Your task to perform on an android device: toggle pop-ups in chrome Image 0: 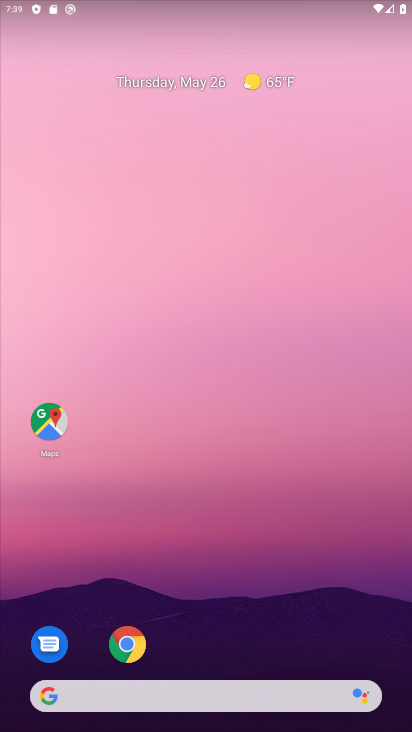
Step 0: drag from (169, 669) to (190, 261)
Your task to perform on an android device: toggle pop-ups in chrome Image 1: 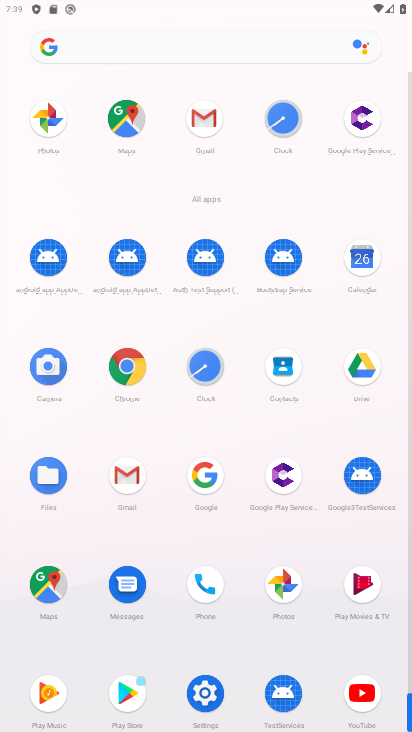
Step 1: click (125, 359)
Your task to perform on an android device: toggle pop-ups in chrome Image 2: 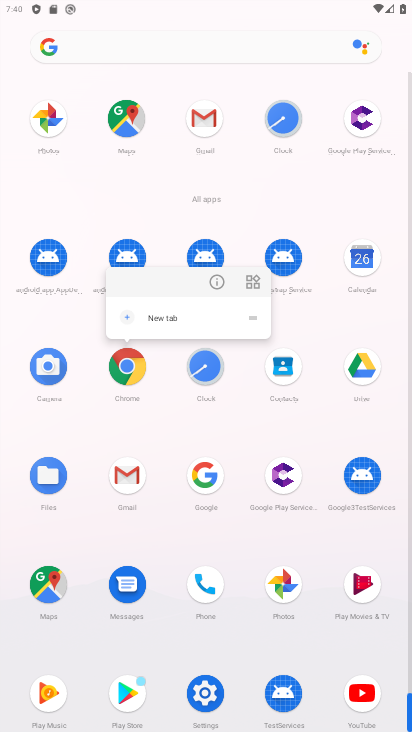
Step 2: click (220, 280)
Your task to perform on an android device: toggle pop-ups in chrome Image 3: 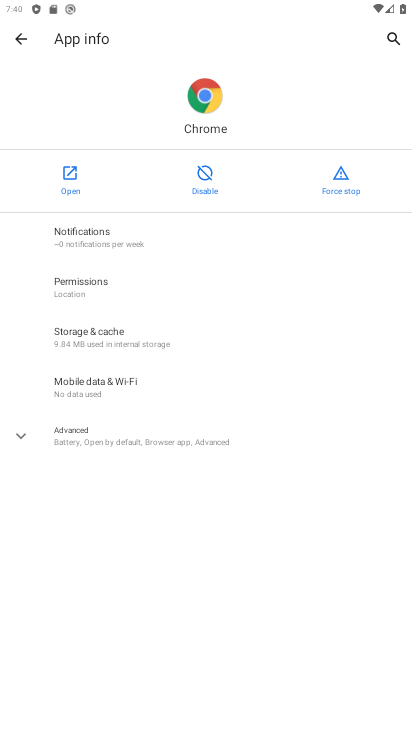
Step 3: click (74, 174)
Your task to perform on an android device: toggle pop-ups in chrome Image 4: 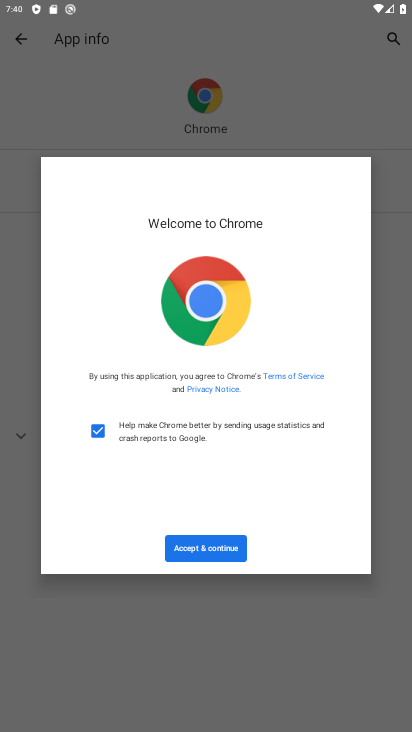
Step 4: click (207, 544)
Your task to perform on an android device: toggle pop-ups in chrome Image 5: 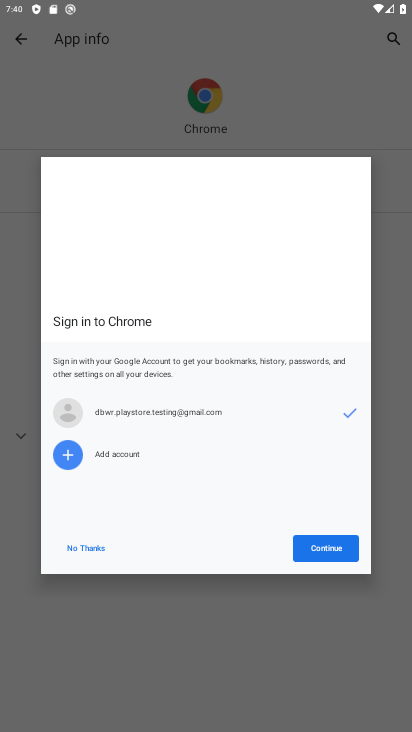
Step 5: click (320, 558)
Your task to perform on an android device: toggle pop-ups in chrome Image 6: 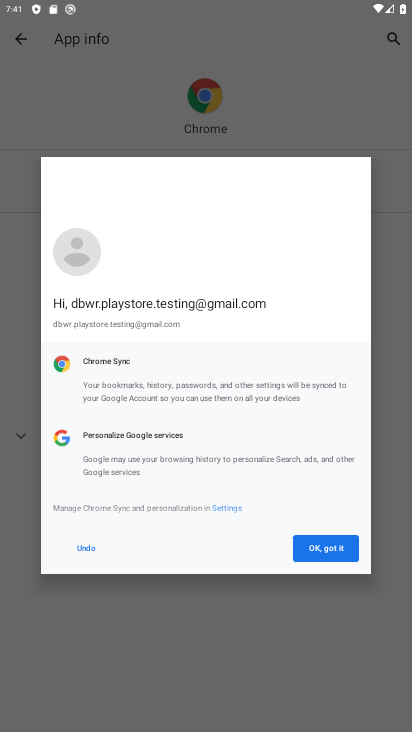
Step 6: click (310, 550)
Your task to perform on an android device: toggle pop-ups in chrome Image 7: 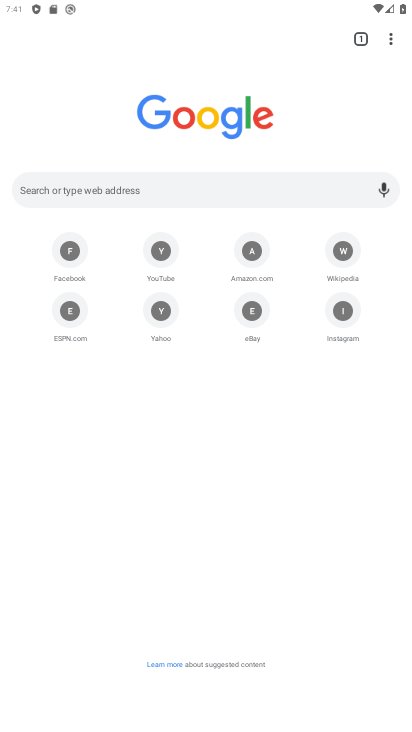
Step 7: drag from (189, 663) to (287, 239)
Your task to perform on an android device: toggle pop-ups in chrome Image 8: 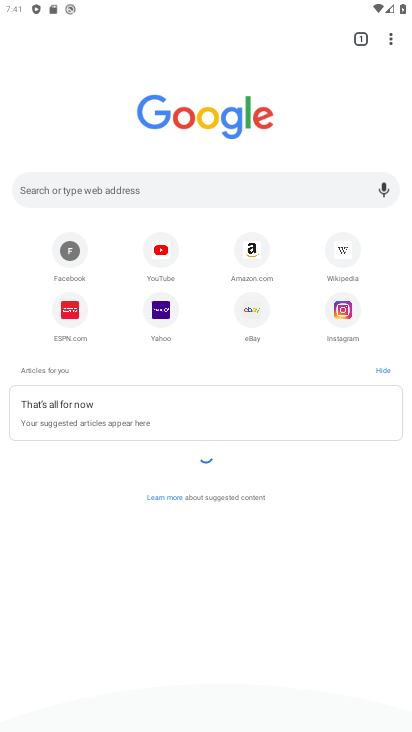
Step 8: drag from (298, 223) to (366, 716)
Your task to perform on an android device: toggle pop-ups in chrome Image 9: 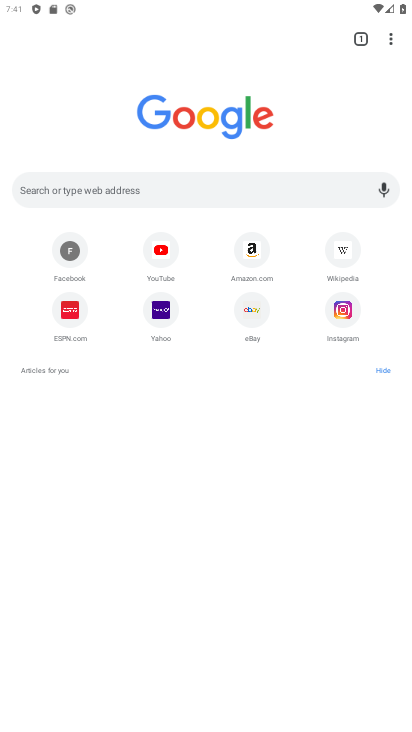
Step 9: click (389, 38)
Your task to perform on an android device: toggle pop-ups in chrome Image 10: 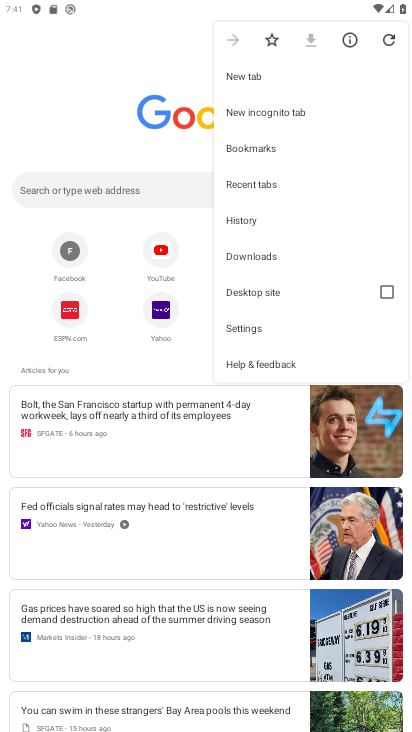
Step 10: drag from (258, 323) to (341, 23)
Your task to perform on an android device: toggle pop-ups in chrome Image 11: 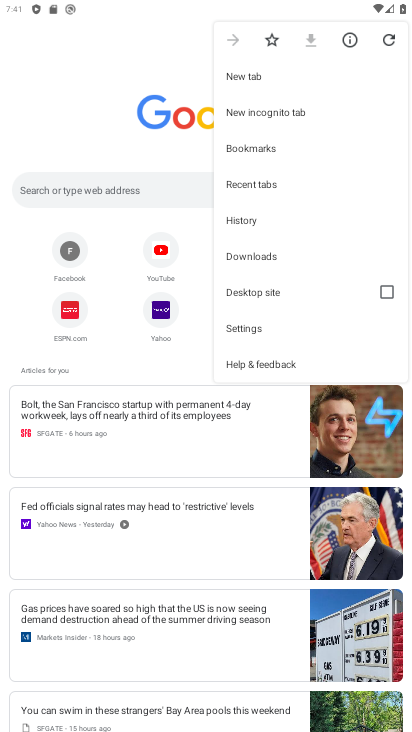
Step 11: click (252, 331)
Your task to perform on an android device: toggle pop-ups in chrome Image 12: 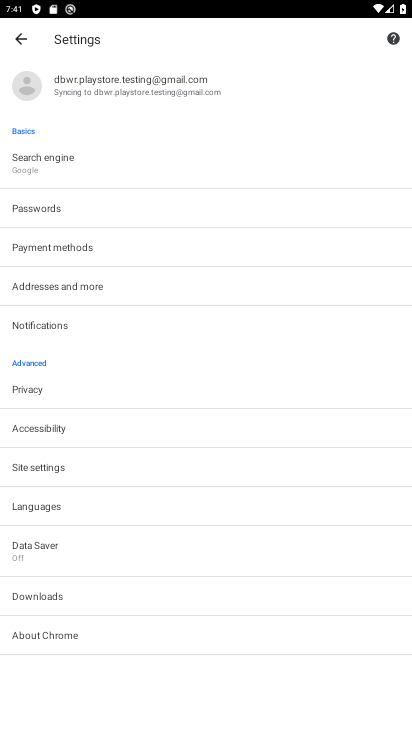
Step 12: click (50, 475)
Your task to perform on an android device: toggle pop-ups in chrome Image 13: 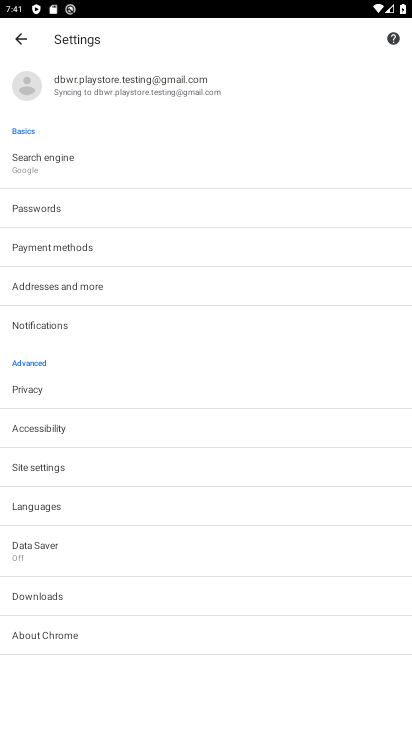
Step 13: click (49, 474)
Your task to perform on an android device: toggle pop-ups in chrome Image 14: 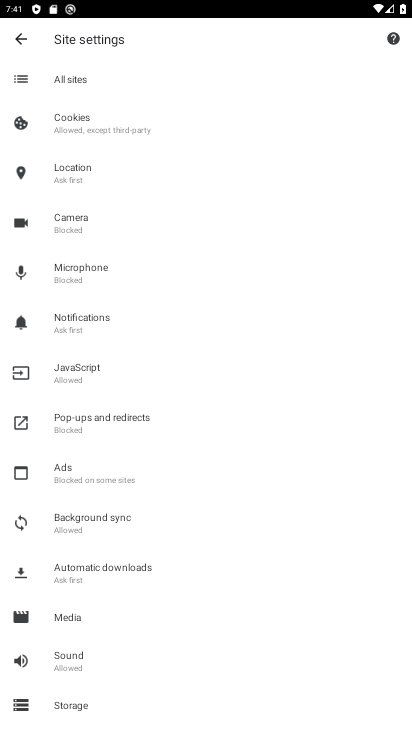
Step 14: click (111, 426)
Your task to perform on an android device: toggle pop-ups in chrome Image 15: 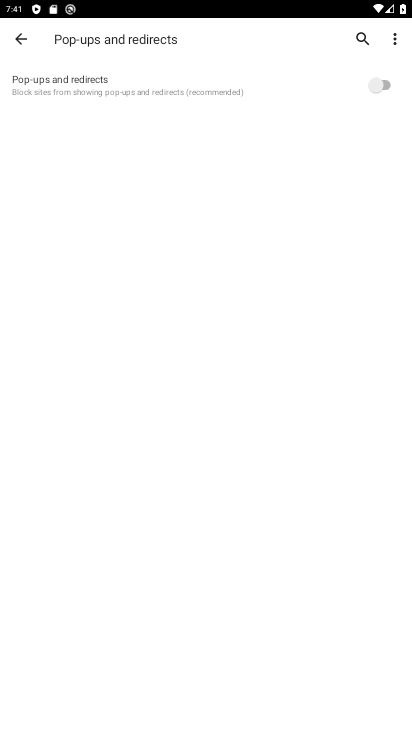
Step 15: click (367, 89)
Your task to perform on an android device: toggle pop-ups in chrome Image 16: 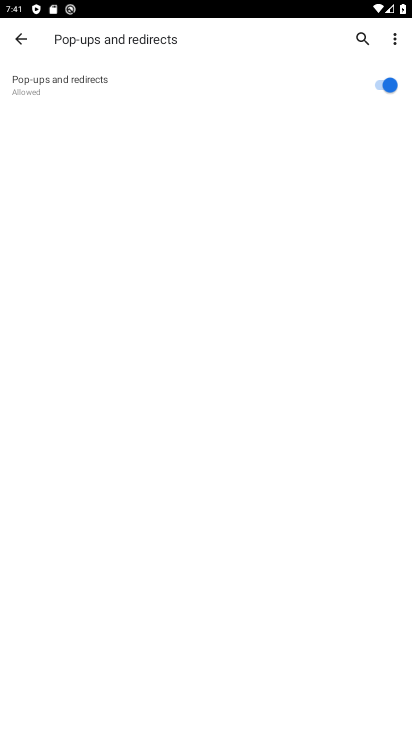
Step 16: task complete